Your task to perform on an android device: Open maps Image 0: 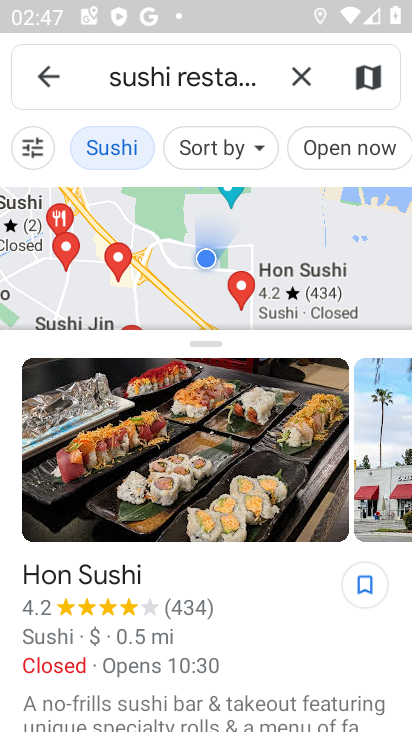
Step 0: click (299, 73)
Your task to perform on an android device: Open maps Image 1: 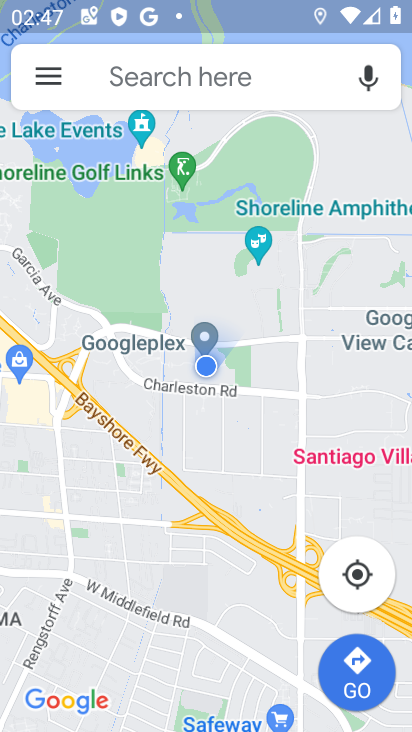
Step 1: task complete